Your task to perform on an android device: Open the map Image 0: 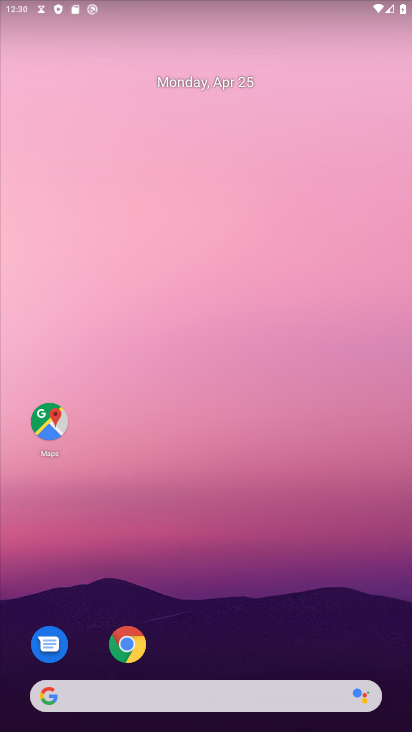
Step 0: click (50, 422)
Your task to perform on an android device: Open the map Image 1: 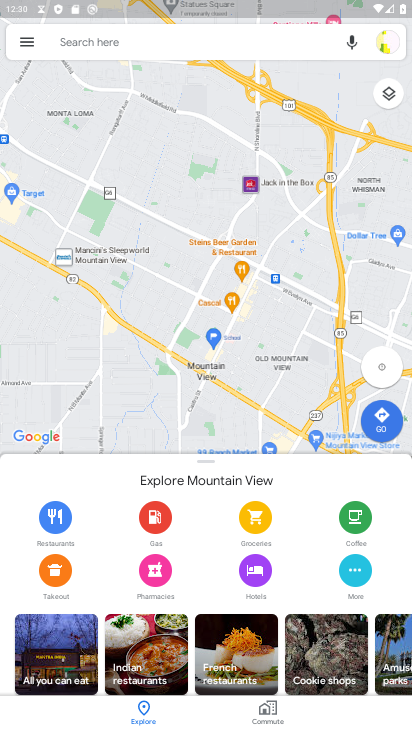
Step 1: task complete